Your task to perform on an android device: Search for seafood restaurants on Google Maps Image 0: 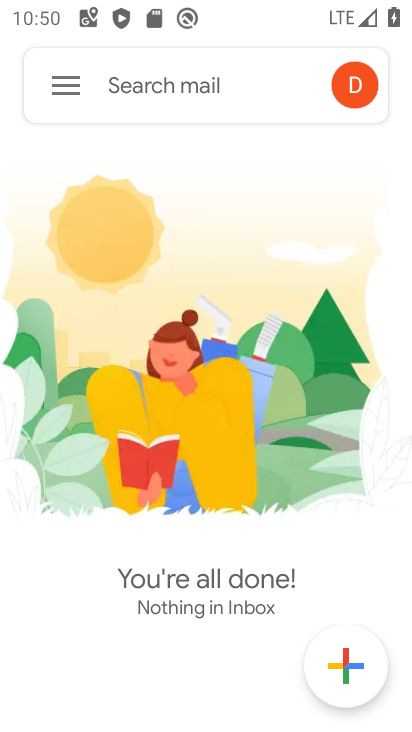
Step 0: press home button
Your task to perform on an android device: Search for seafood restaurants on Google Maps Image 1: 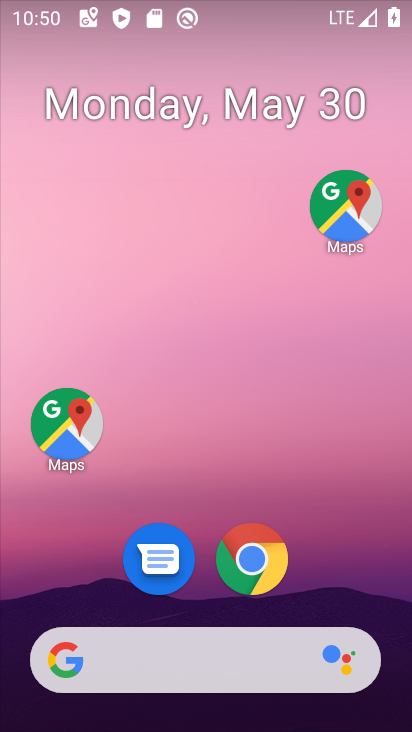
Step 1: click (70, 426)
Your task to perform on an android device: Search for seafood restaurants on Google Maps Image 2: 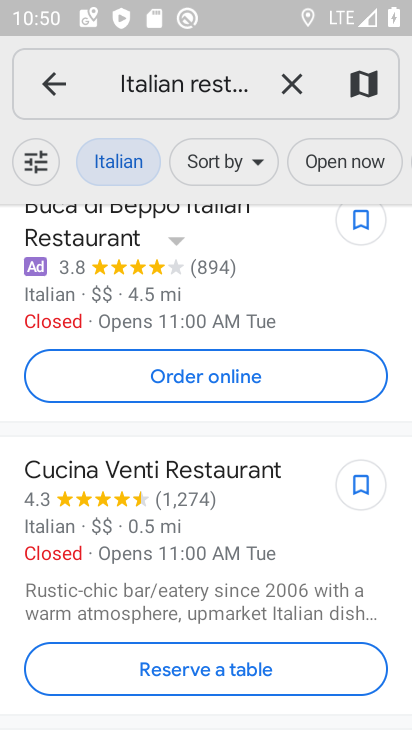
Step 2: click (214, 82)
Your task to perform on an android device: Search for seafood restaurants on Google Maps Image 3: 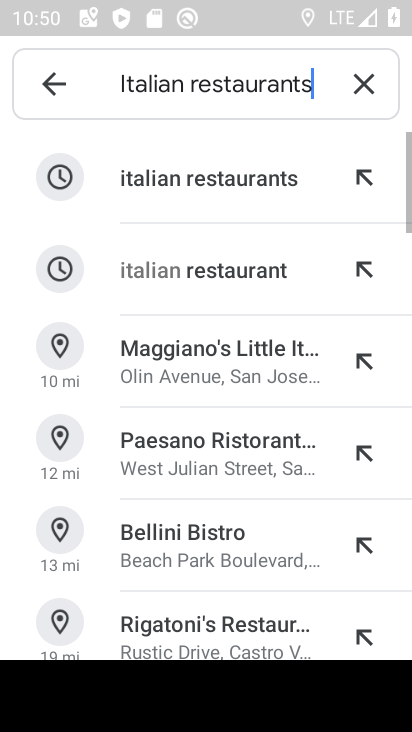
Step 3: click (367, 78)
Your task to perform on an android device: Search for seafood restaurants on Google Maps Image 4: 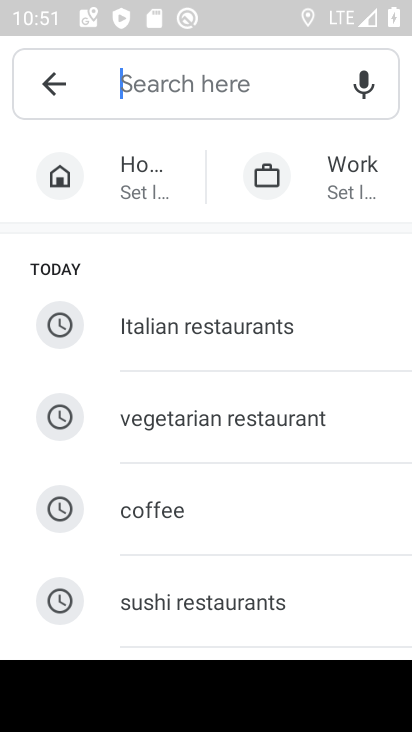
Step 4: type "seafood restaurants"
Your task to perform on an android device: Search for seafood restaurants on Google Maps Image 5: 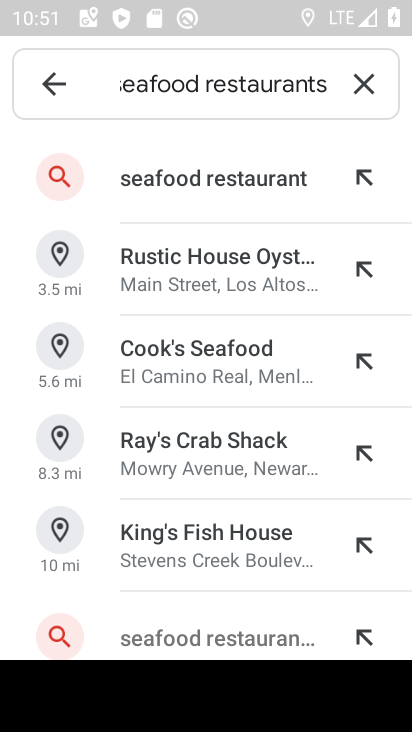
Step 5: press enter
Your task to perform on an android device: Search for seafood restaurants on Google Maps Image 6: 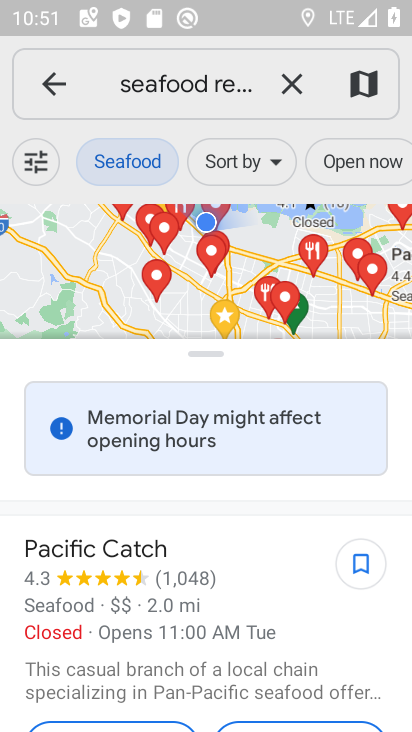
Step 6: task complete